Your task to perform on an android device: uninstall "PlayWell" Image 0: 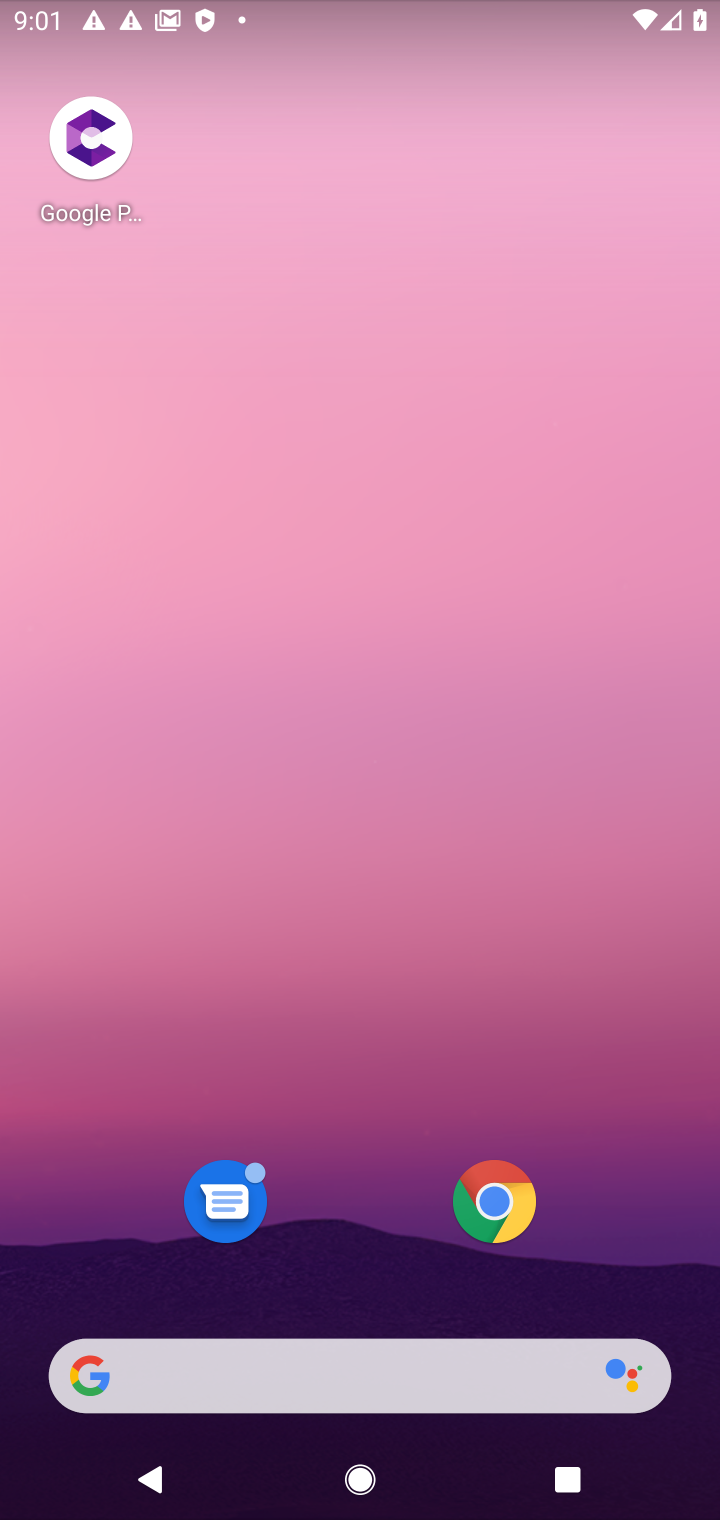
Step 0: click (327, 1375)
Your task to perform on an android device: uninstall "PlayWell" Image 1: 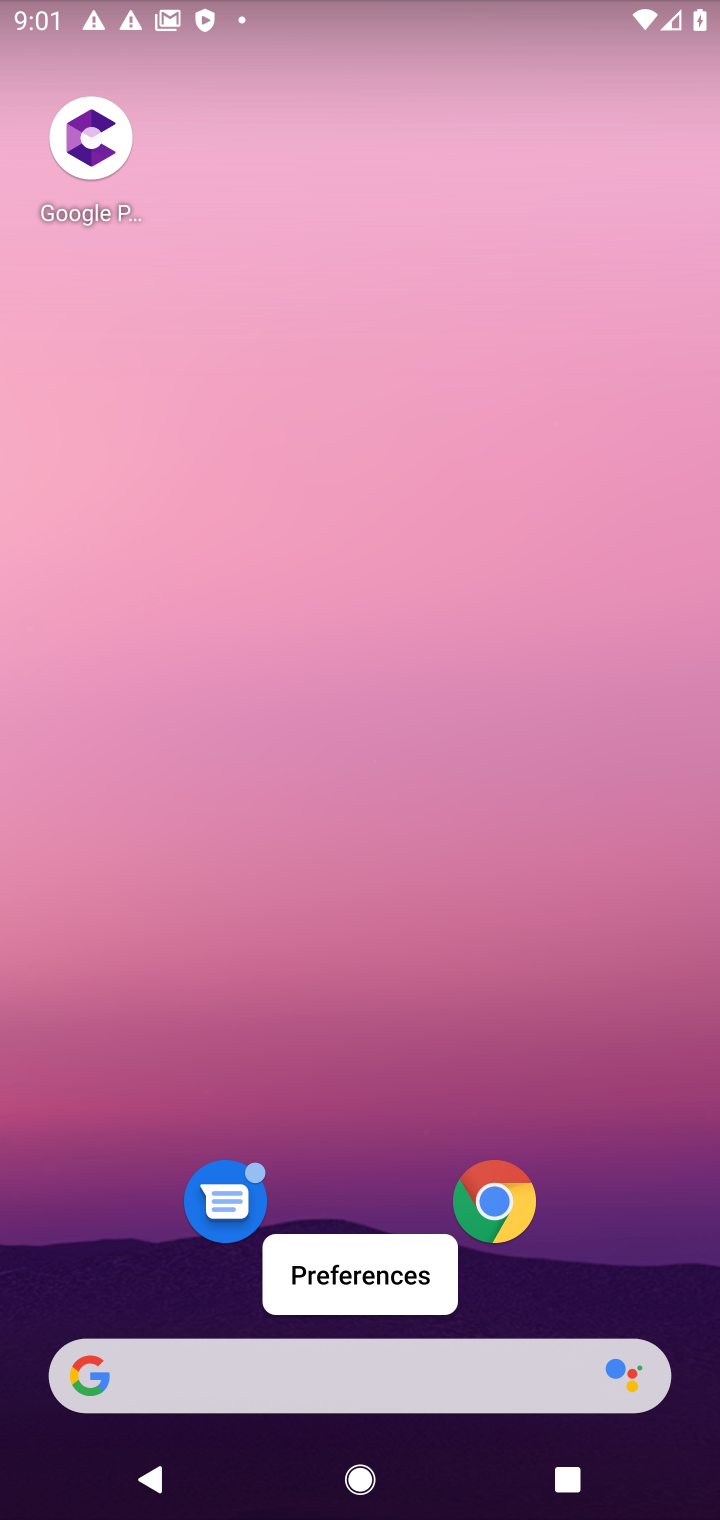
Step 1: task complete